Your task to perform on an android device: open app "Reddit" Image 0: 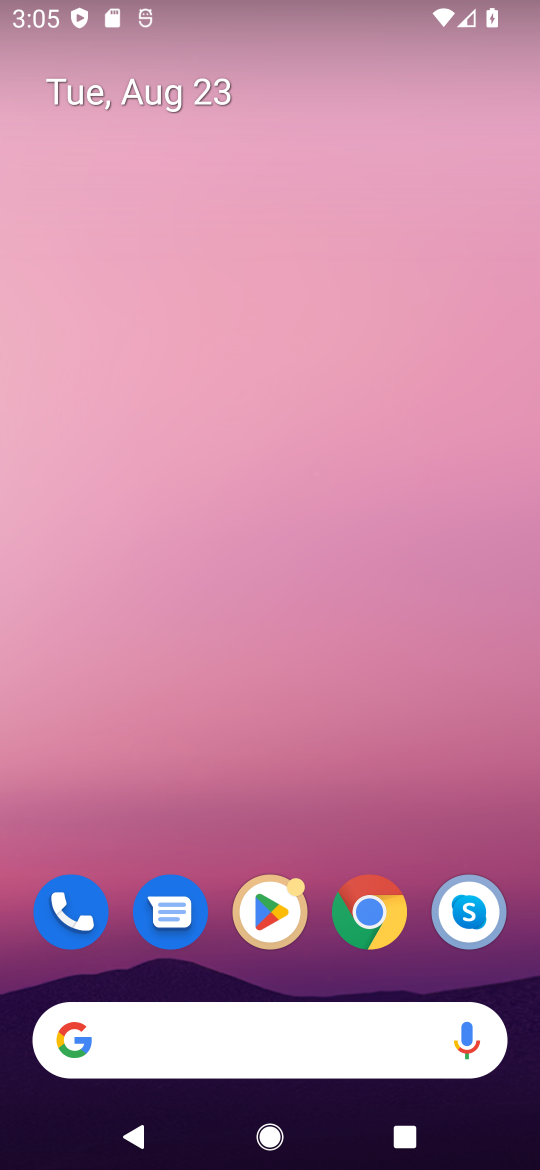
Step 0: drag from (158, 1043) to (237, 278)
Your task to perform on an android device: open app "Reddit" Image 1: 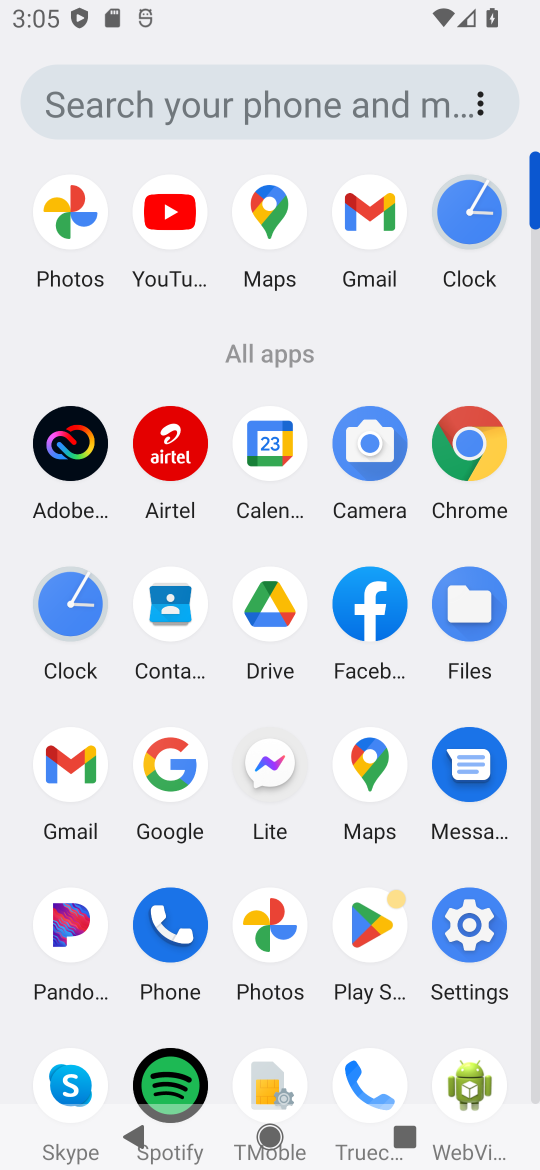
Step 1: click (381, 925)
Your task to perform on an android device: open app "Reddit" Image 2: 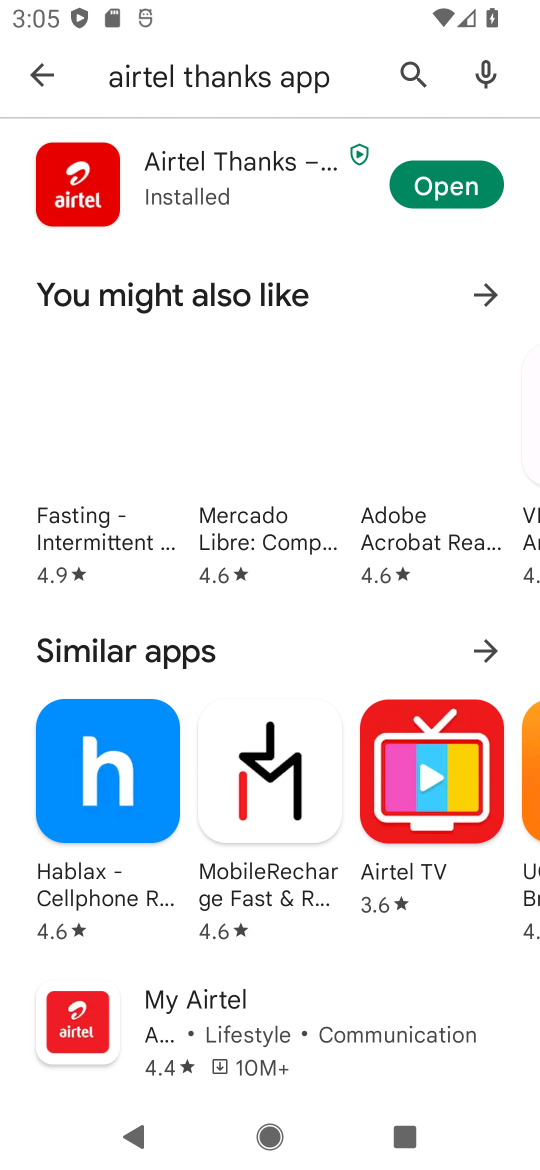
Step 2: press back button
Your task to perform on an android device: open app "Reddit" Image 3: 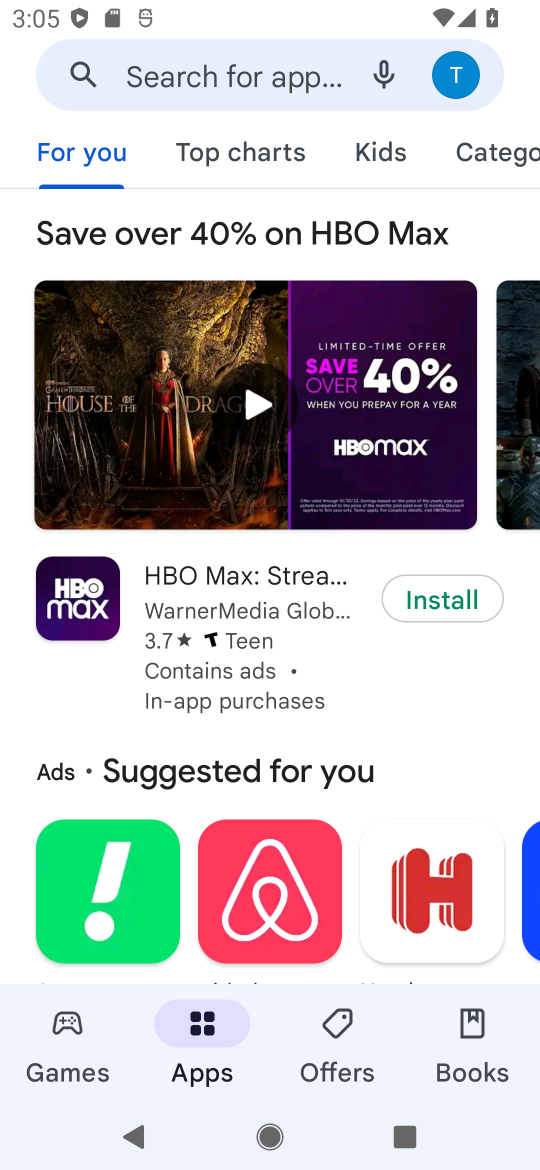
Step 3: click (243, 74)
Your task to perform on an android device: open app "Reddit" Image 4: 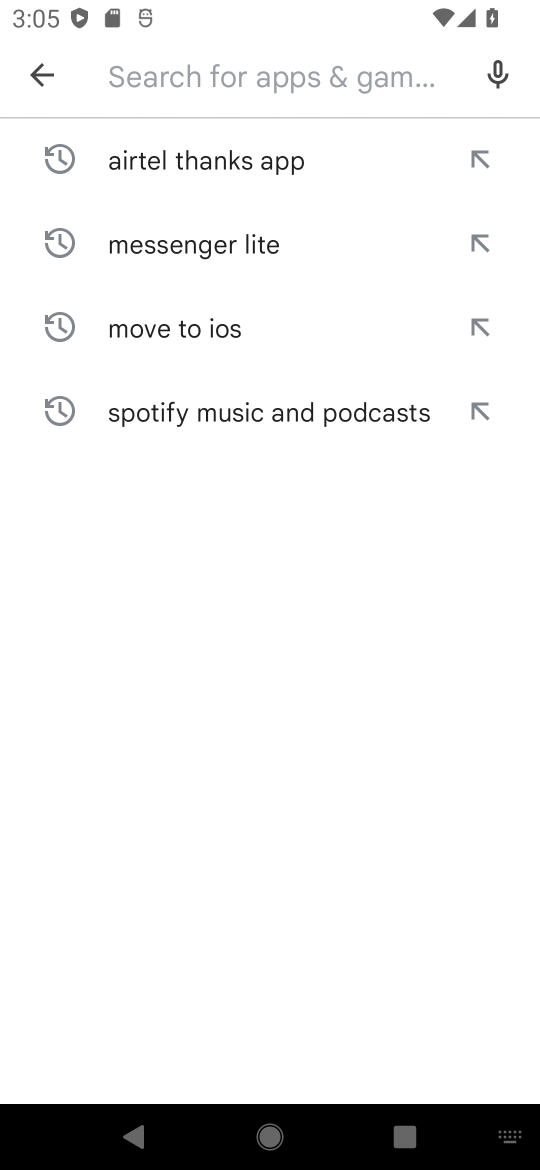
Step 4: type "Reddit"
Your task to perform on an android device: open app "Reddit" Image 5: 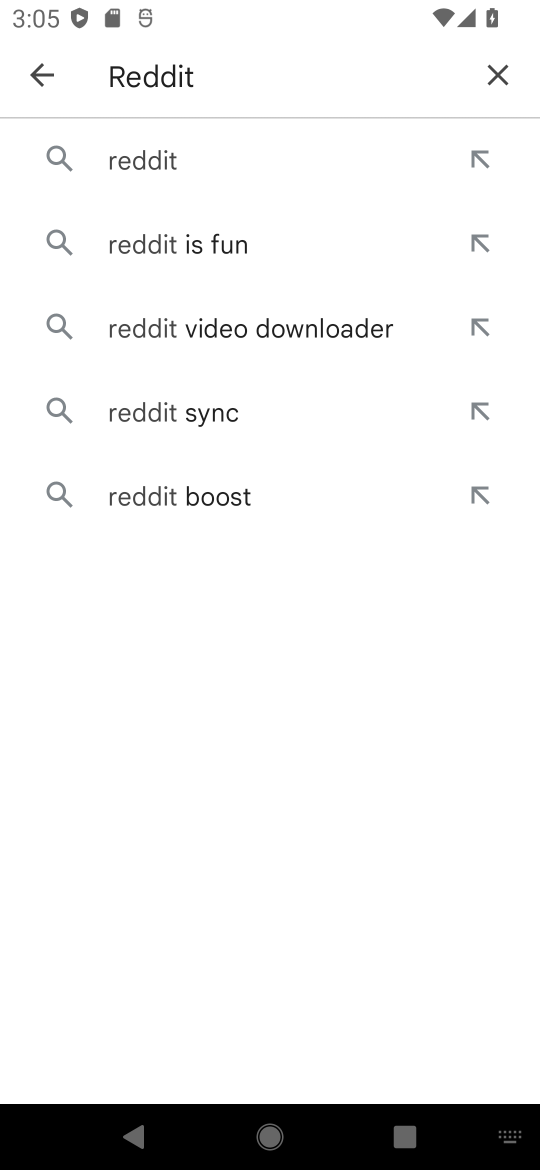
Step 5: click (143, 148)
Your task to perform on an android device: open app "Reddit" Image 6: 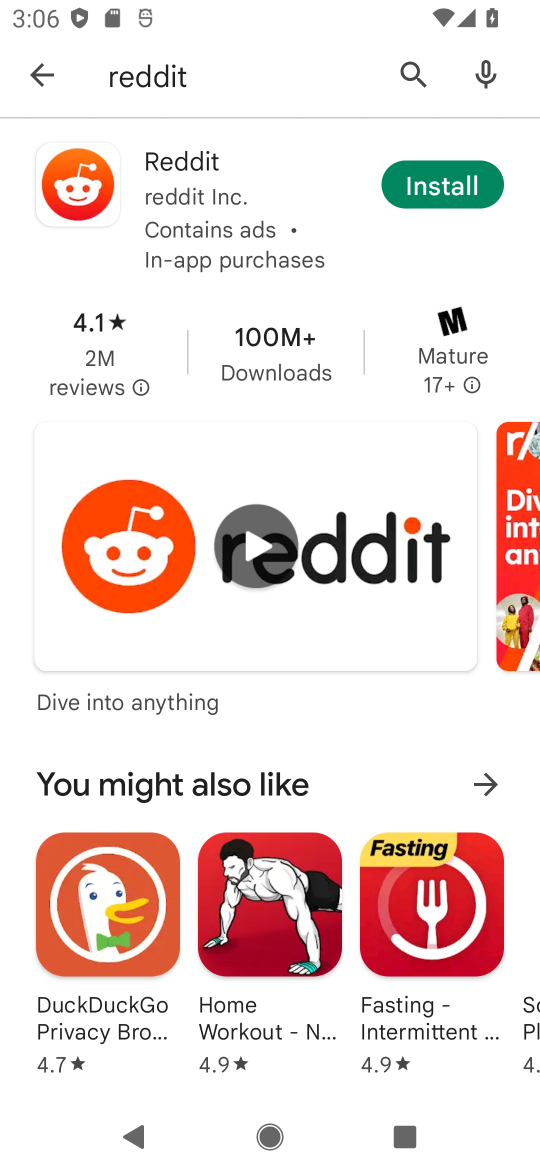
Step 6: task complete